Your task to perform on an android device: set the timer Image 0: 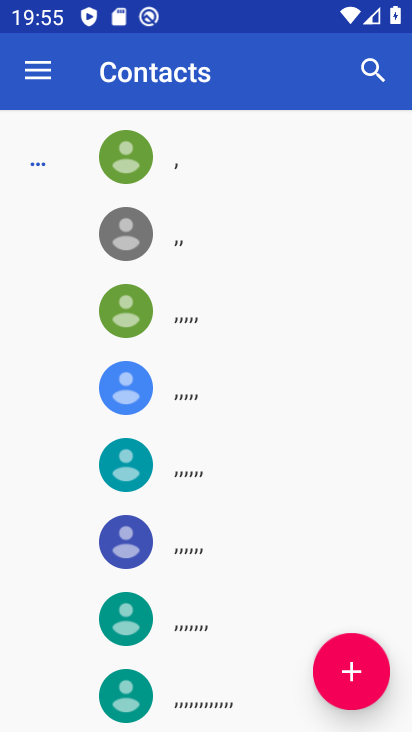
Step 0: press home button
Your task to perform on an android device: set the timer Image 1: 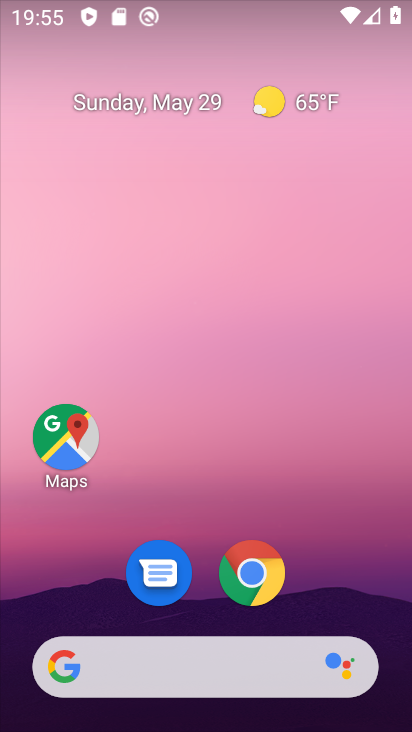
Step 1: drag from (203, 602) to (230, 275)
Your task to perform on an android device: set the timer Image 2: 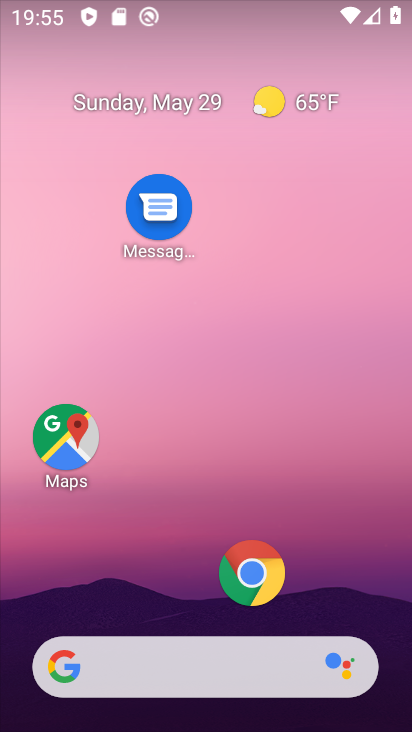
Step 2: drag from (202, 607) to (196, 210)
Your task to perform on an android device: set the timer Image 3: 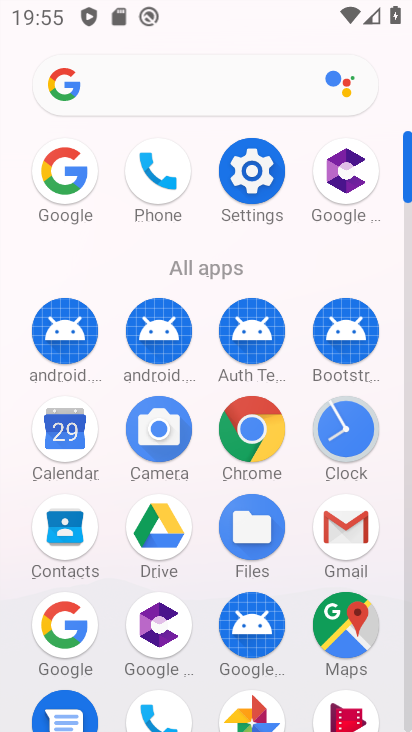
Step 3: click (327, 395)
Your task to perform on an android device: set the timer Image 4: 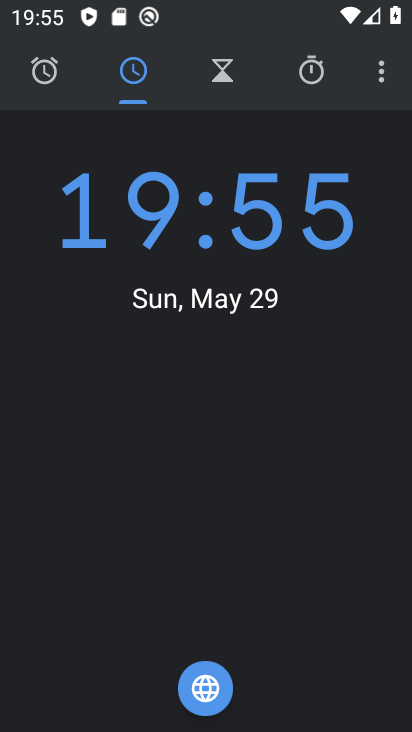
Step 4: click (265, 77)
Your task to perform on an android device: set the timer Image 5: 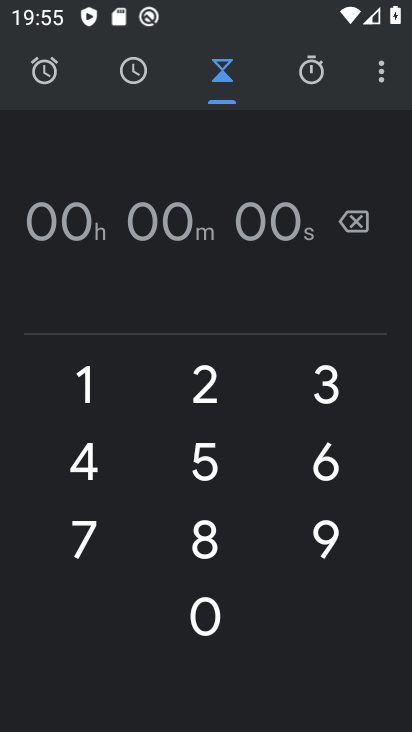
Step 5: click (270, 243)
Your task to perform on an android device: set the timer Image 6: 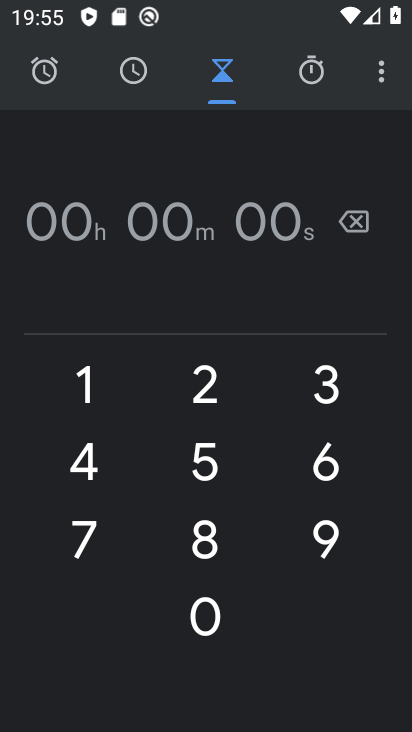
Step 6: click (95, 390)
Your task to perform on an android device: set the timer Image 7: 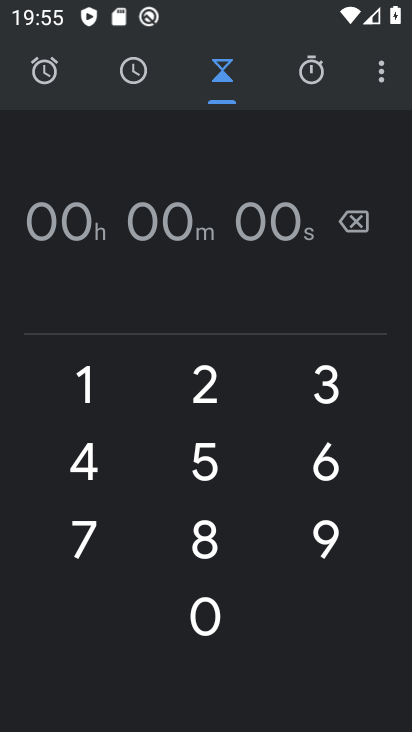
Step 7: click (95, 390)
Your task to perform on an android device: set the timer Image 8: 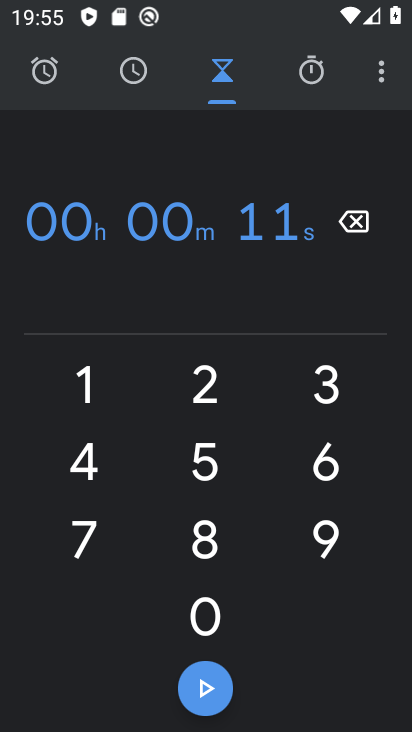
Step 8: click (213, 697)
Your task to perform on an android device: set the timer Image 9: 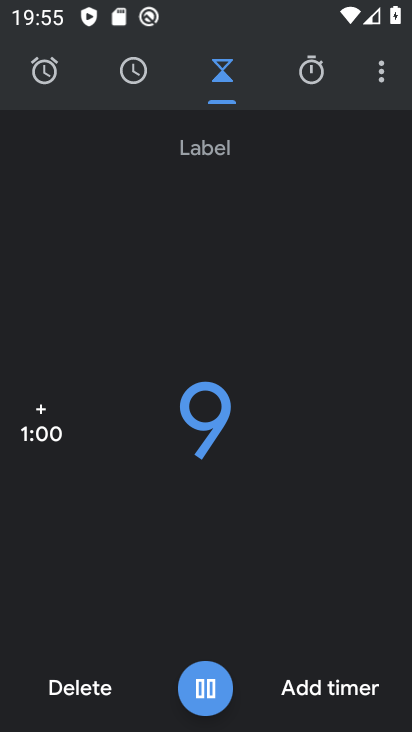
Step 9: task complete